Your task to perform on an android device: turn smart compose on in the gmail app Image 0: 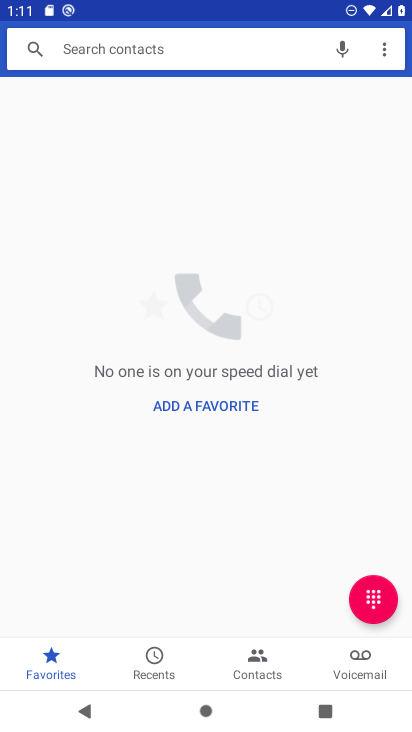
Step 0: press home button
Your task to perform on an android device: turn smart compose on in the gmail app Image 1: 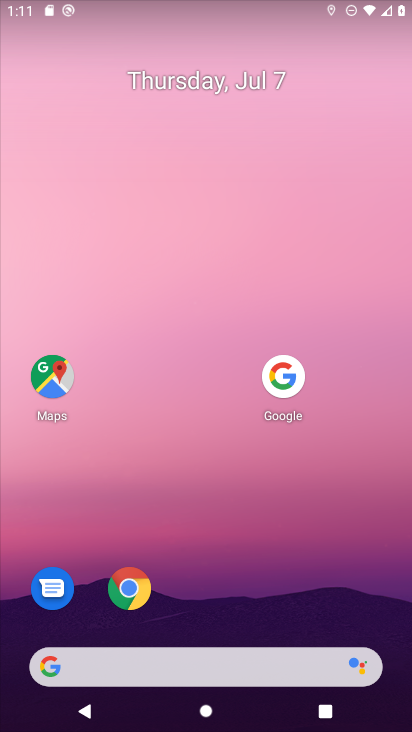
Step 1: drag from (183, 666) to (273, 9)
Your task to perform on an android device: turn smart compose on in the gmail app Image 2: 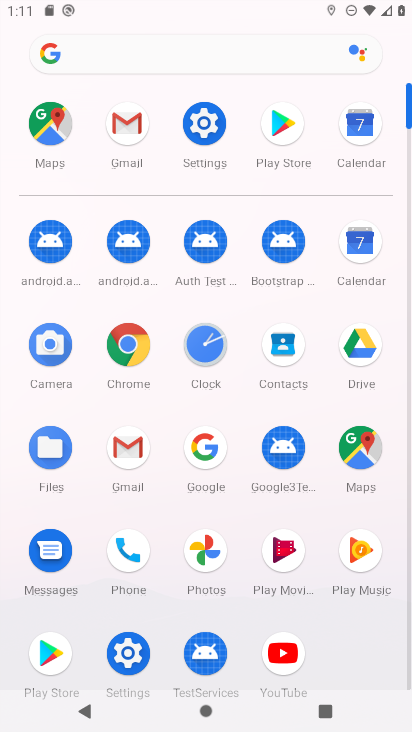
Step 2: click (127, 449)
Your task to perform on an android device: turn smart compose on in the gmail app Image 3: 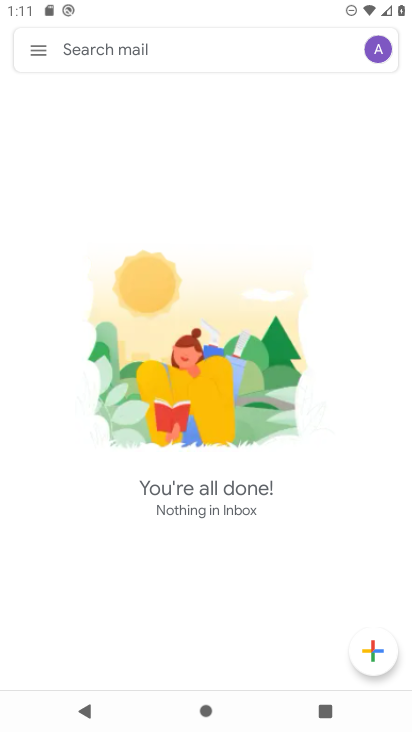
Step 3: click (37, 52)
Your task to perform on an android device: turn smart compose on in the gmail app Image 4: 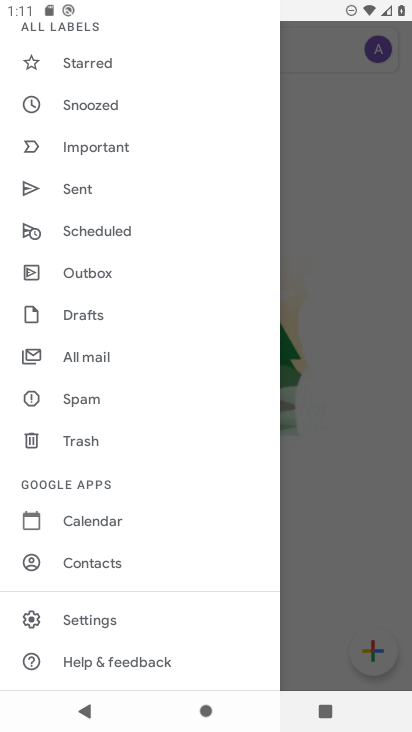
Step 4: click (95, 616)
Your task to perform on an android device: turn smart compose on in the gmail app Image 5: 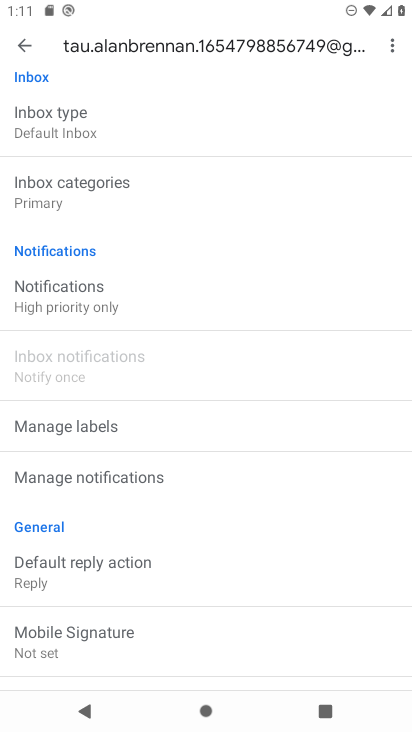
Step 5: task complete